Your task to perform on an android device: Set the phone to "Do not disturb". Image 0: 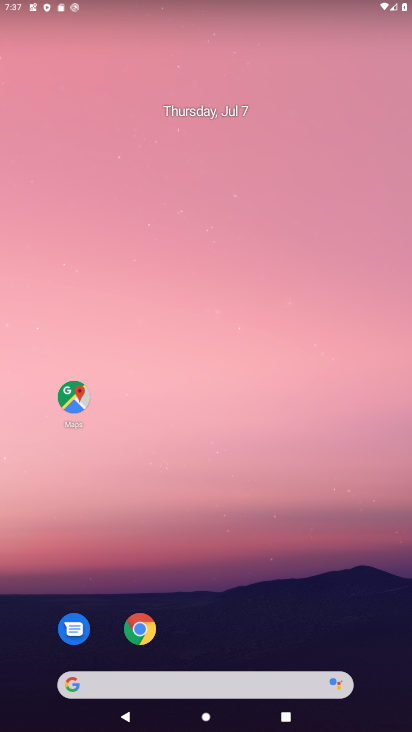
Step 0: drag from (372, 621) to (373, 110)
Your task to perform on an android device: Set the phone to "Do not disturb". Image 1: 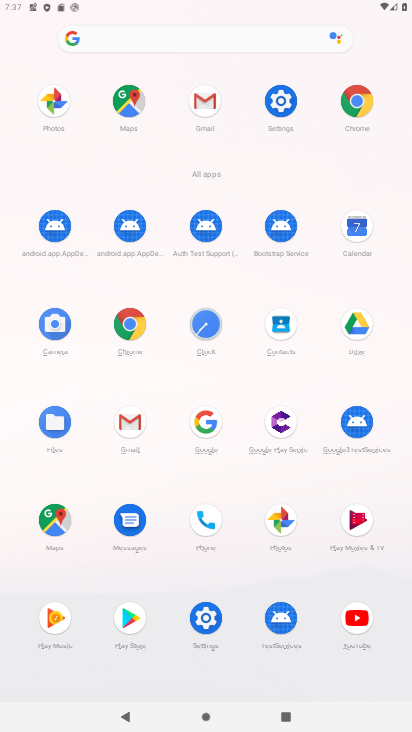
Step 1: click (282, 113)
Your task to perform on an android device: Set the phone to "Do not disturb". Image 2: 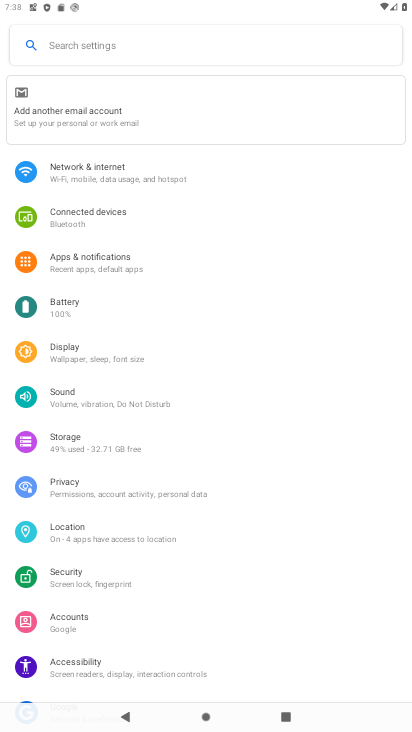
Step 2: click (142, 405)
Your task to perform on an android device: Set the phone to "Do not disturb". Image 3: 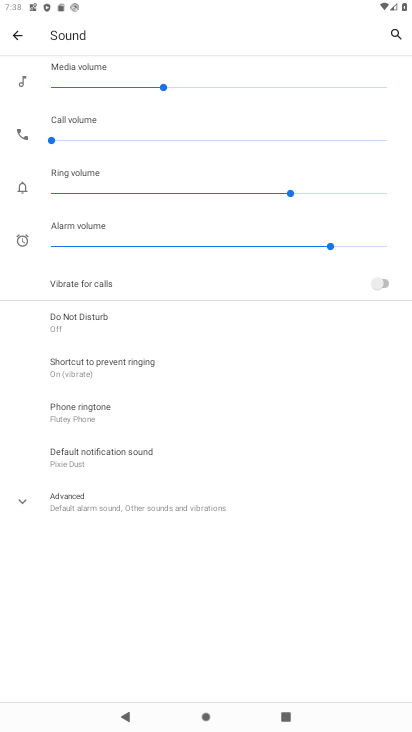
Step 3: click (96, 319)
Your task to perform on an android device: Set the phone to "Do not disturb". Image 4: 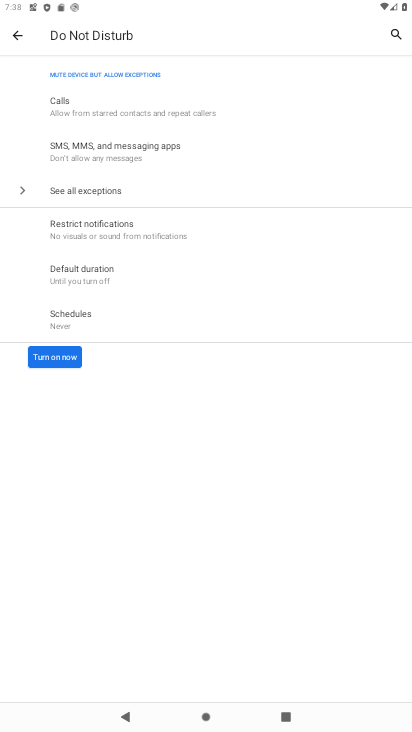
Step 4: click (63, 355)
Your task to perform on an android device: Set the phone to "Do not disturb". Image 5: 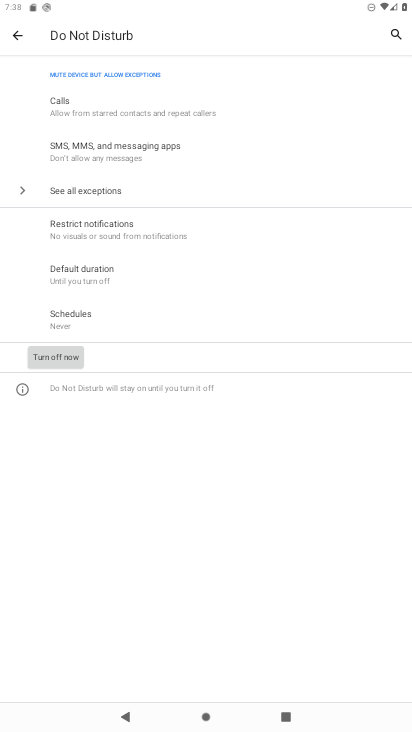
Step 5: task complete